Your task to perform on an android device: remove spam from my inbox in the gmail app Image 0: 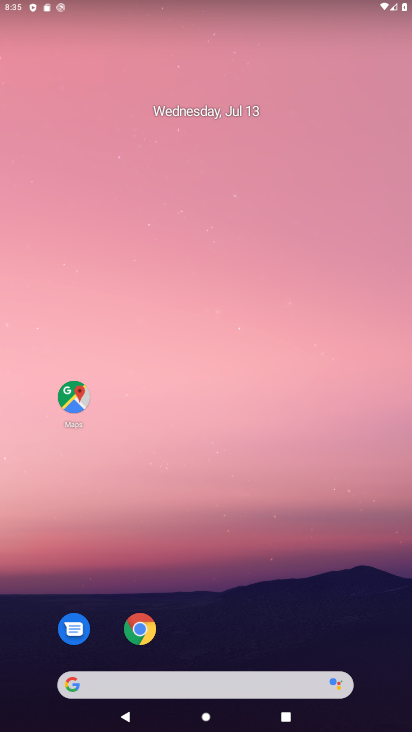
Step 0: drag from (205, 604) to (317, 30)
Your task to perform on an android device: remove spam from my inbox in the gmail app Image 1: 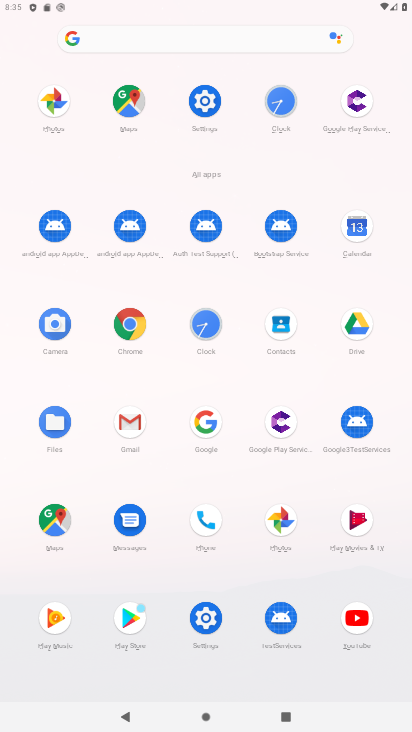
Step 1: click (119, 417)
Your task to perform on an android device: remove spam from my inbox in the gmail app Image 2: 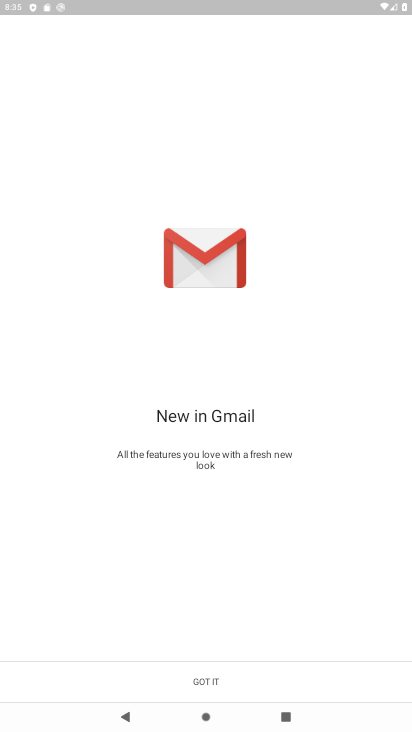
Step 2: click (232, 672)
Your task to perform on an android device: remove spam from my inbox in the gmail app Image 3: 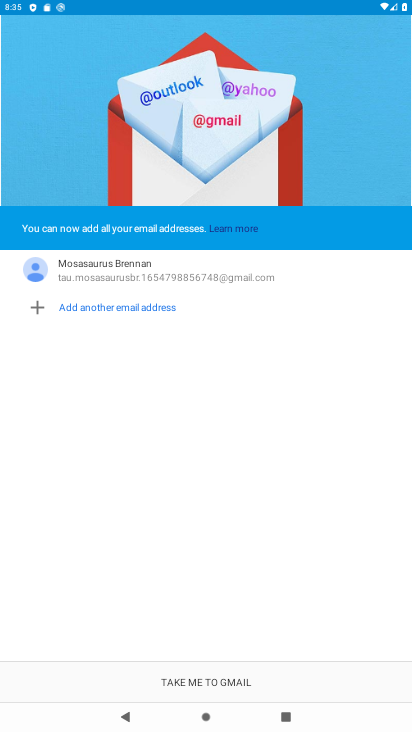
Step 3: click (189, 669)
Your task to perform on an android device: remove spam from my inbox in the gmail app Image 4: 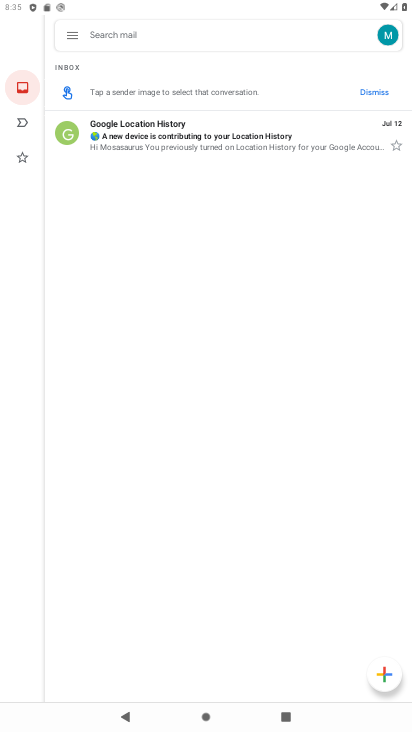
Step 4: click (66, 31)
Your task to perform on an android device: remove spam from my inbox in the gmail app Image 5: 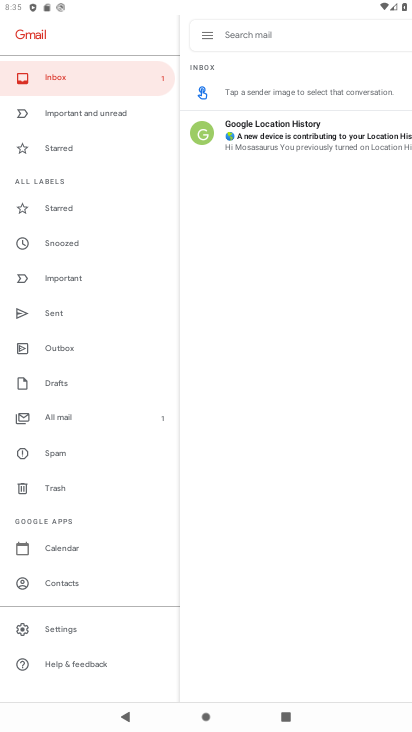
Step 5: click (57, 454)
Your task to perform on an android device: remove spam from my inbox in the gmail app Image 6: 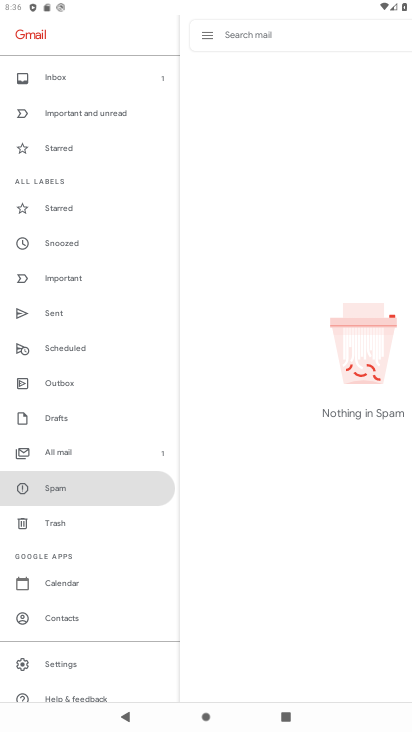
Step 6: click (104, 489)
Your task to perform on an android device: remove spam from my inbox in the gmail app Image 7: 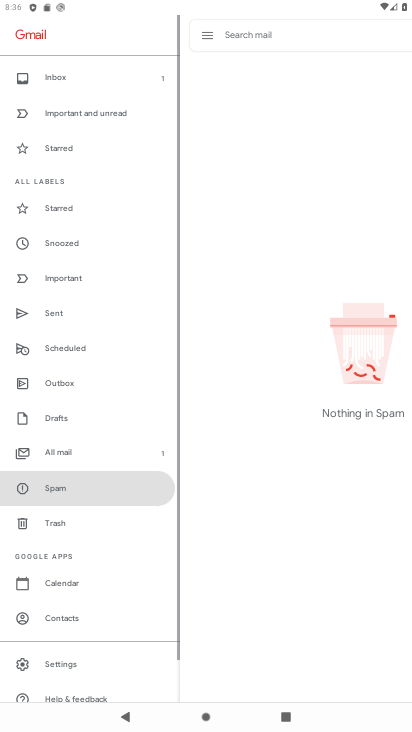
Step 7: task complete